Your task to perform on an android device: turn off sleep mode Image 0: 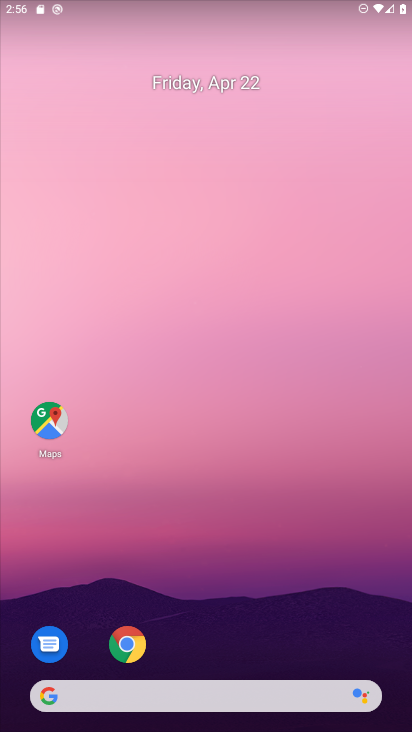
Step 0: drag from (280, 586) to (252, 166)
Your task to perform on an android device: turn off sleep mode Image 1: 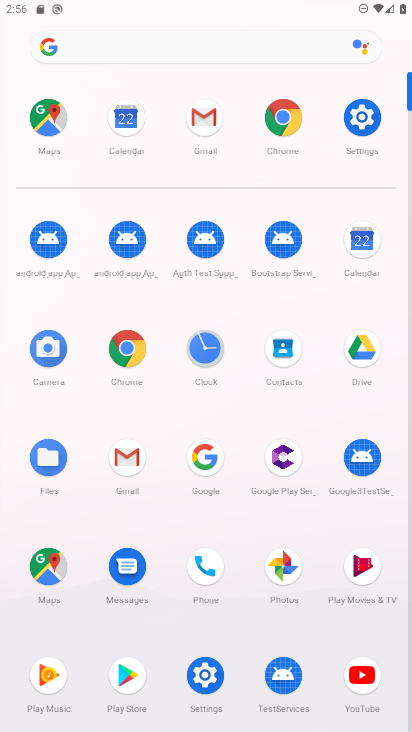
Step 1: click (364, 114)
Your task to perform on an android device: turn off sleep mode Image 2: 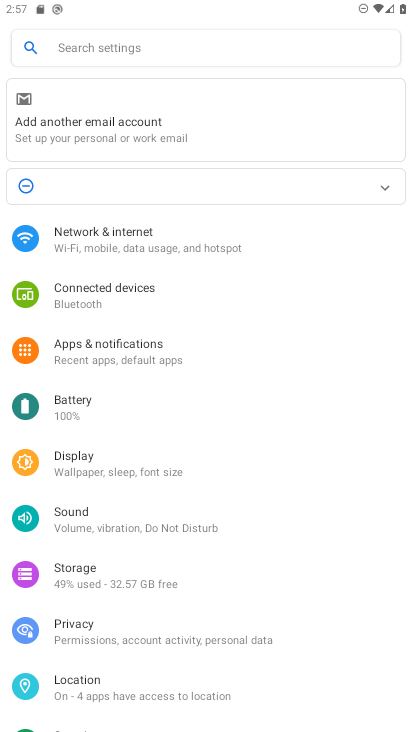
Step 2: click (83, 452)
Your task to perform on an android device: turn off sleep mode Image 3: 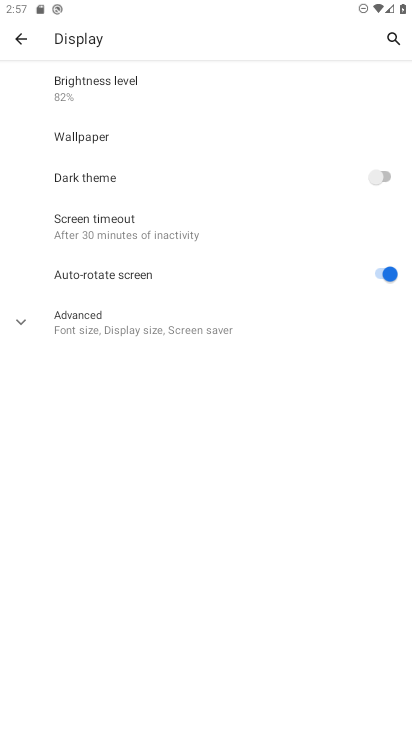
Step 3: click (133, 229)
Your task to perform on an android device: turn off sleep mode Image 4: 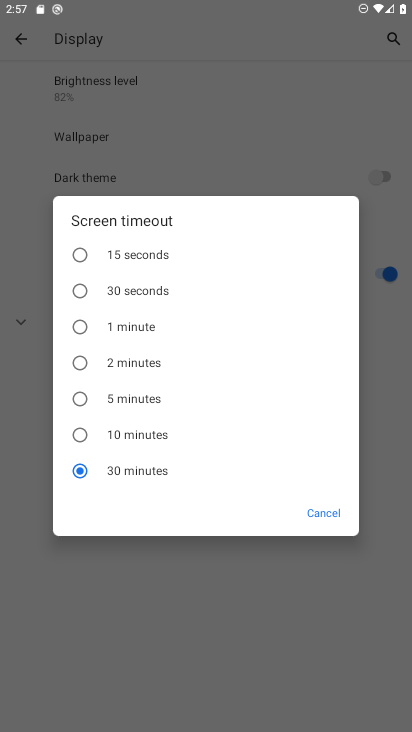
Step 4: task complete